Your task to perform on an android device: move a message to another label in the gmail app Image 0: 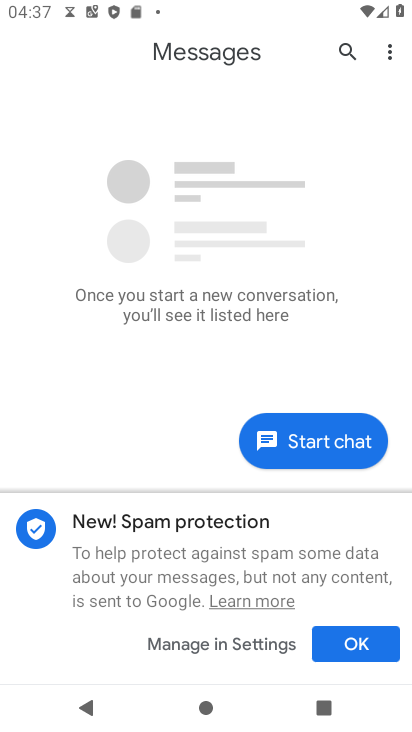
Step 0: press back button
Your task to perform on an android device: move a message to another label in the gmail app Image 1: 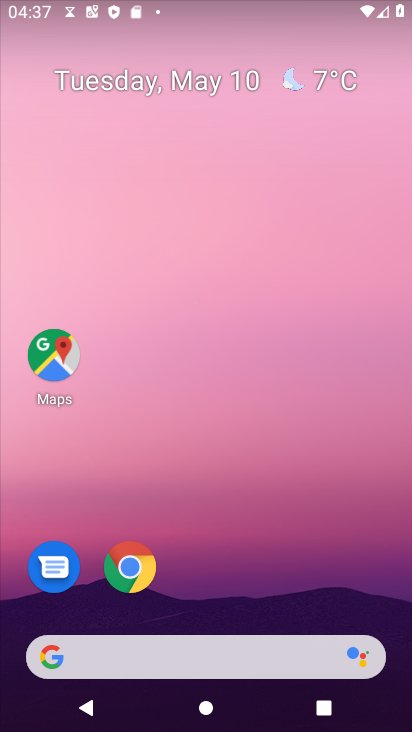
Step 1: drag from (249, 591) to (163, 114)
Your task to perform on an android device: move a message to another label in the gmail app Image 2: 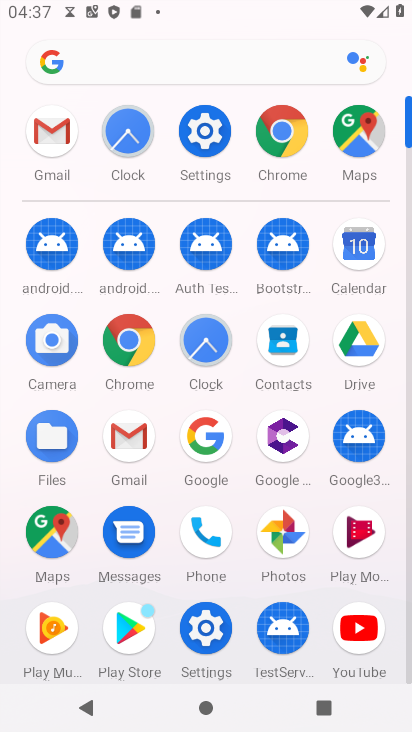
Step 2: click (49, 132)
Your task to perform on an android device: move a message to another label in the gmail app Image 3: 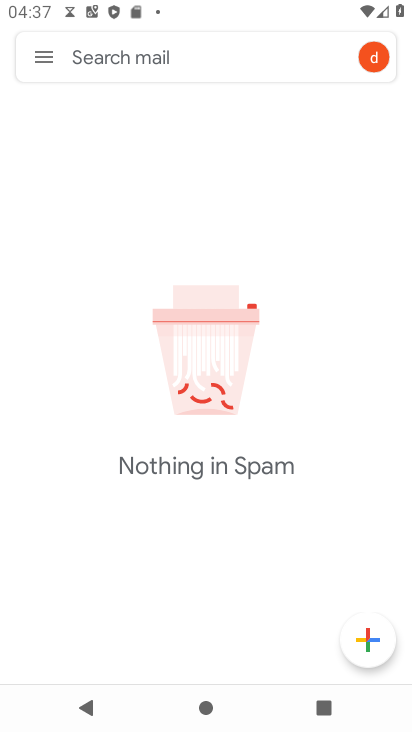
Step 3: click (47, 53)
Your task to perform on an android device: move a message to another label in the gmail app Image 4: 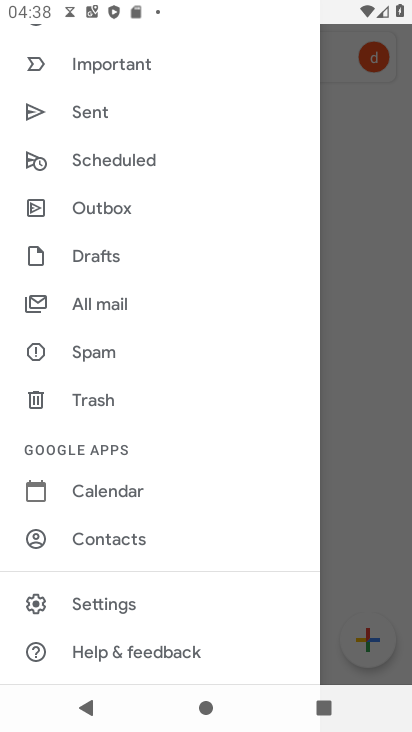
Step 4: drag from (121, 264) to (141, 353)
Your task to perform on an android device: move a message to another label in the gmail app Image 5: 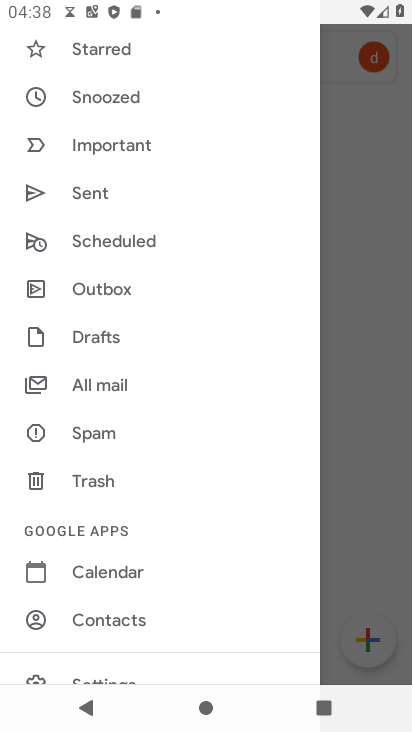
Step 5: drag from (102, 252) to (147, 357)
Your task to perform on an android device: move a message to another label in the gmail app Image 6: 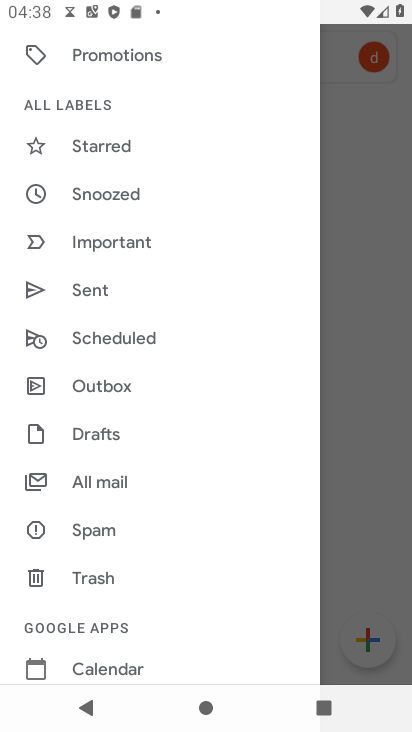
Step 6: drag from (112, 500) to (141, 386)
Your task to perform on an android device: move a message to another label in the gmail app Image 7: 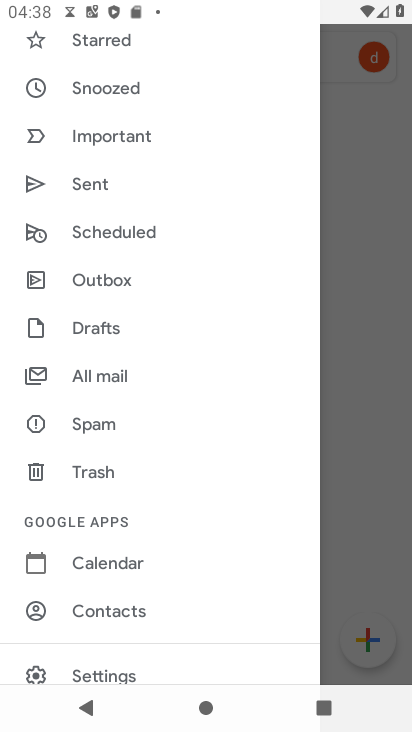
Step 7: drag from (152, 512) to (178, 392)
Your task to perform on an android device: move a message to another label in the gmail app Image 8: 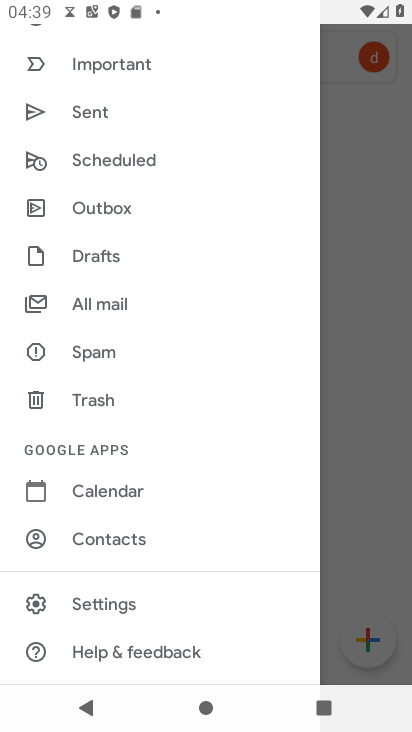
Step 8: drag from (136, 220) to (114, 399)
Your task to perform on an android device: move a message to another label in the gmail app Image 9: 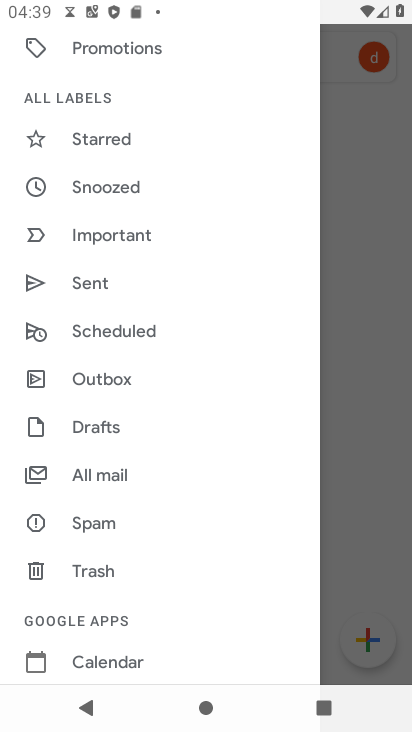
Step 9: click (99, 478)
Your task to perform on an android device: move a message to another label in the gmail app Image 10: 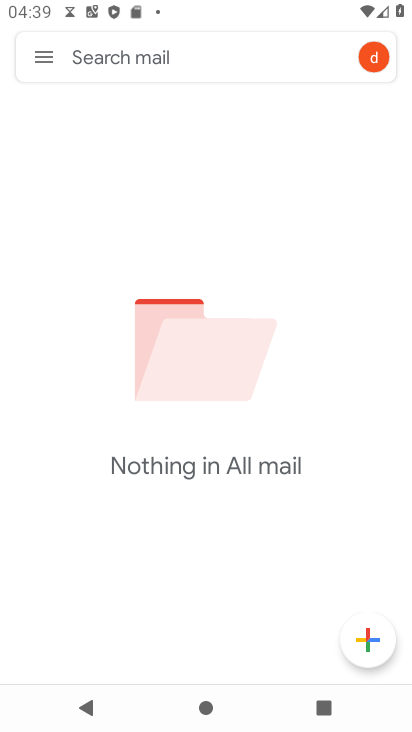
Step 10: task complete